Your task to perform on an android device: turn off priority inbox in the gmail app Image 0: 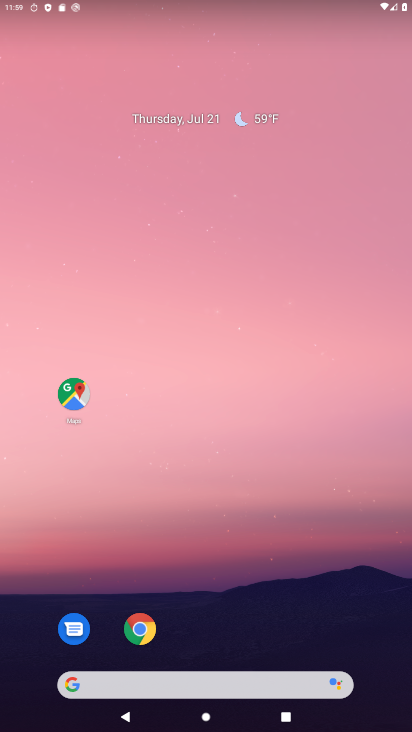
Step 0: drag from (348, 361) to (351, 103)
Your task to perform on an android device: turn off priority inbox in the gmail app Image 1: 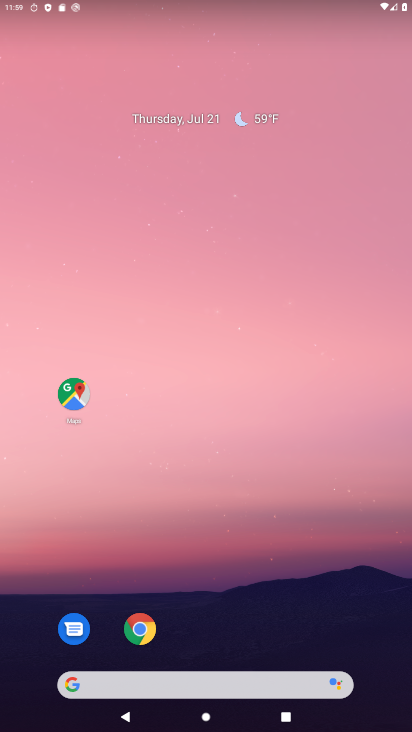
Step 1: drag from (228, 702) to (339, 111)
Your task to perform on an android device: turn off priority inbox in the gmail app Image 2: 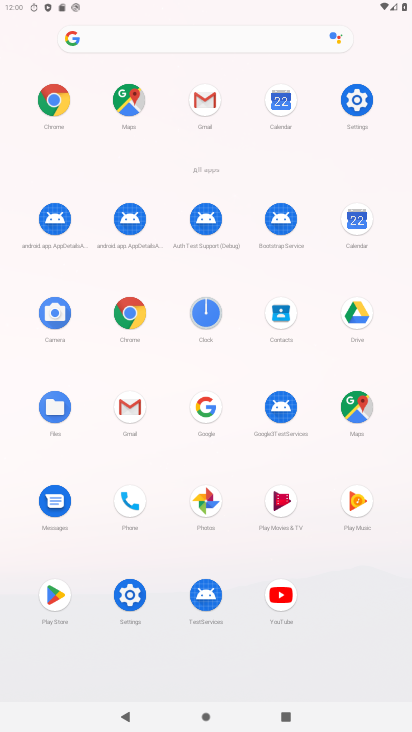
Step 2: click (130, 410)
Your task to perform on an android device: turn off priority inbox in the gmail app Image 3: 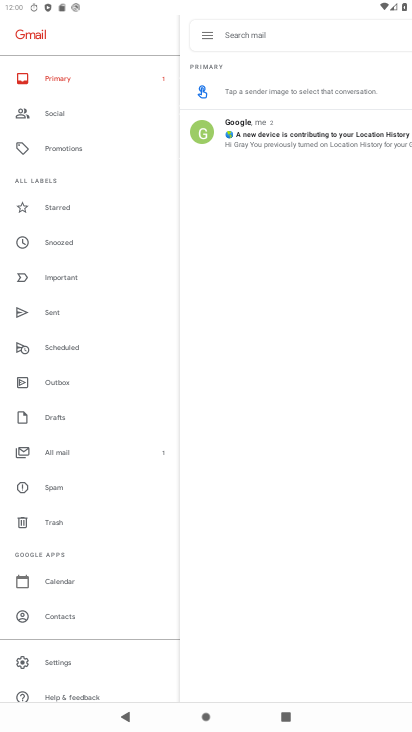
Step 3: click (54, 658)
Your task to perform on an android device: turn off priority inbox in the gmail app Image 4: 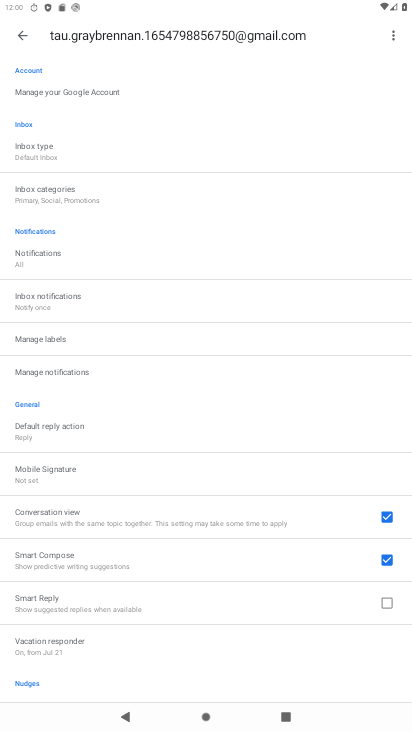
Step 4: click (70, 156)
Your task to perform on an android device: turn off priority inbox in the gmail app Image 5: 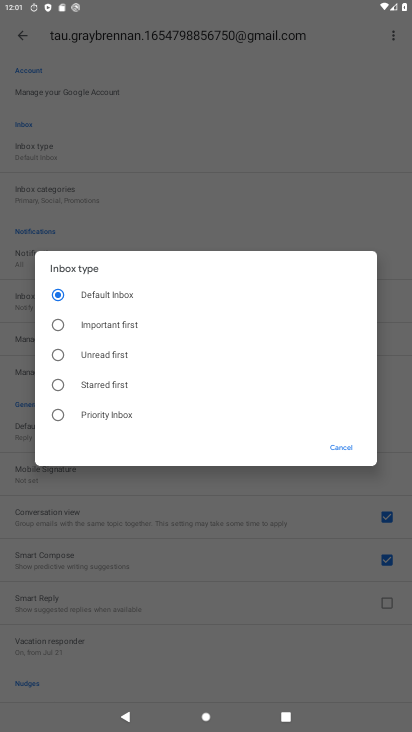
Step 5: task complete